Your task to perform on an android device: turn off data saver in the chrome app Image 0: 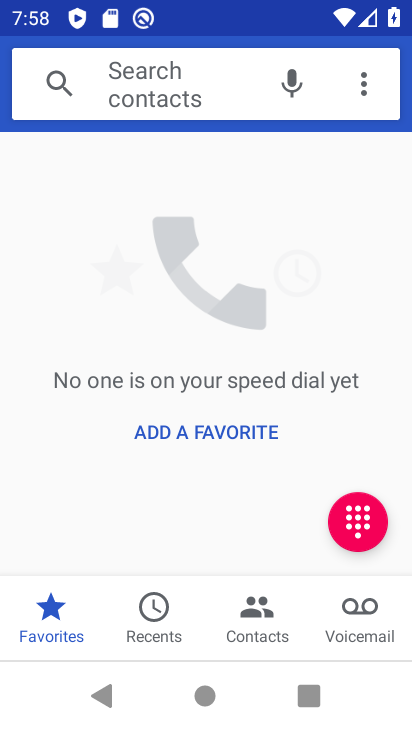
Step 0: press home button
Your task to perform on an android device: turn off data saver in the chrome app Image 1: 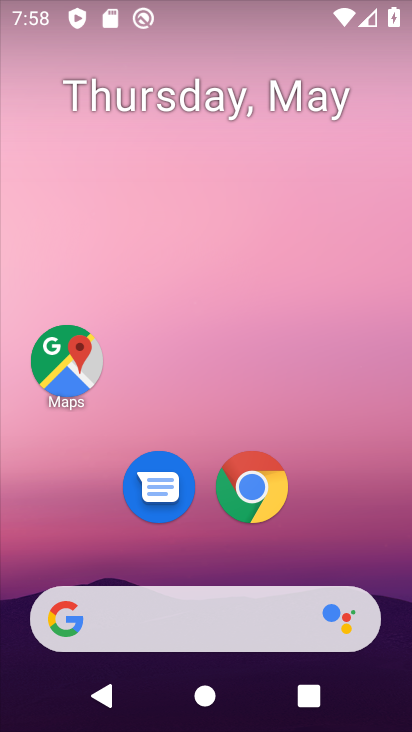
Step 1: click (277, 508)
Your task to perform on an android device: turn off data saver in the chrome app Image 2: 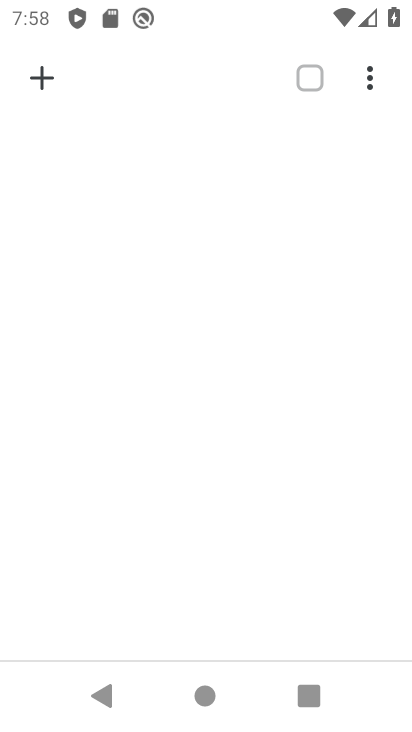
Step 2: click (376, 77)
Your task to perform on an android device: turn off data saver in the chrome app Image 3: 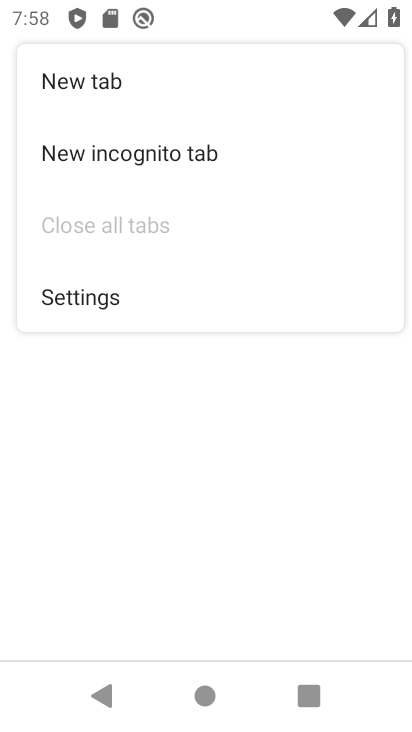
Step 3: click (90, 298)
Your task to perform on an android device: turn off data saver in the chrome app Image 4: 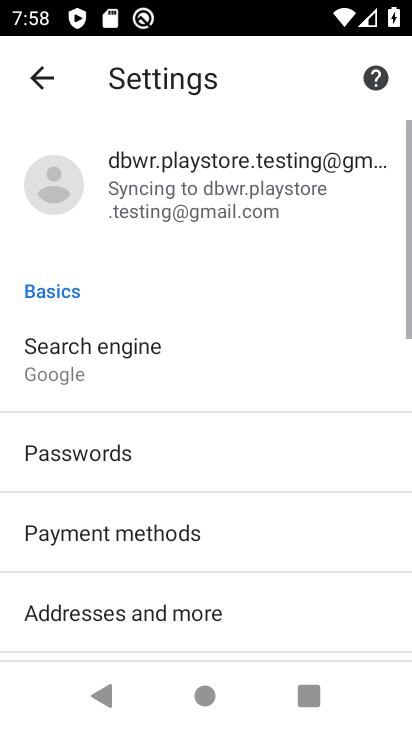
Step 4: drag from (257, 597) to (279, 188)
Your task to perform on an android device: turn off data saver in the chrome app Image 5: 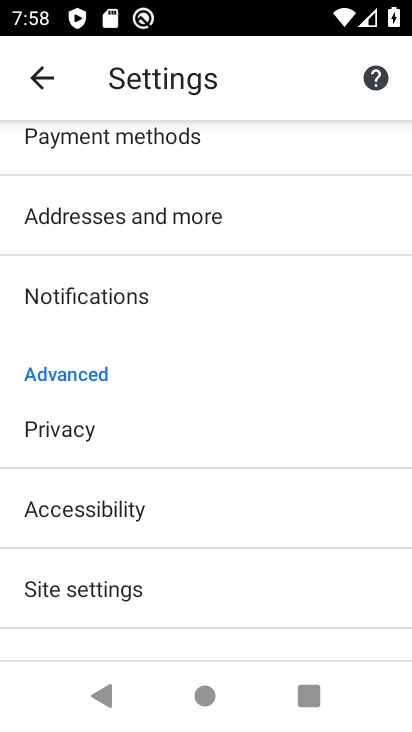
Step 5: drag from (231, 611) to (293, 162)
Your task to perform on an android device: turn off data saver in the chrome app Image 6: 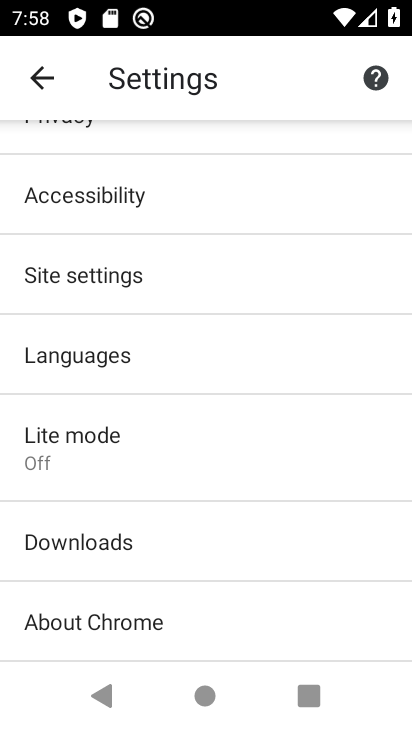
Step 6: click (99, 463)
Your task to perform on an android device: turn off data saver in the chrome app Image 7: 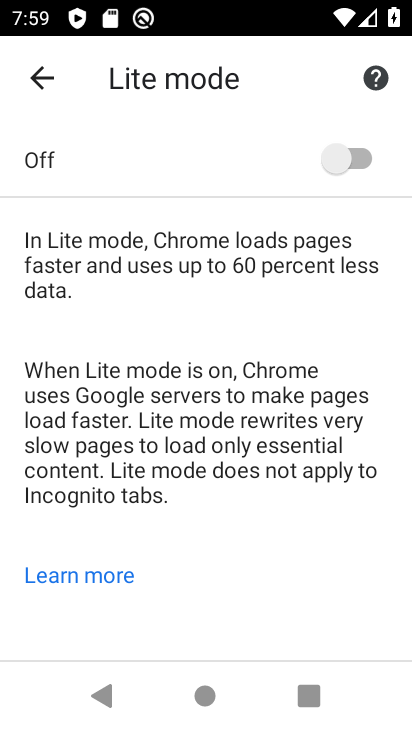
Step 7: task complete